Your task to perform on an android device: Open Wikipedia Image 0: 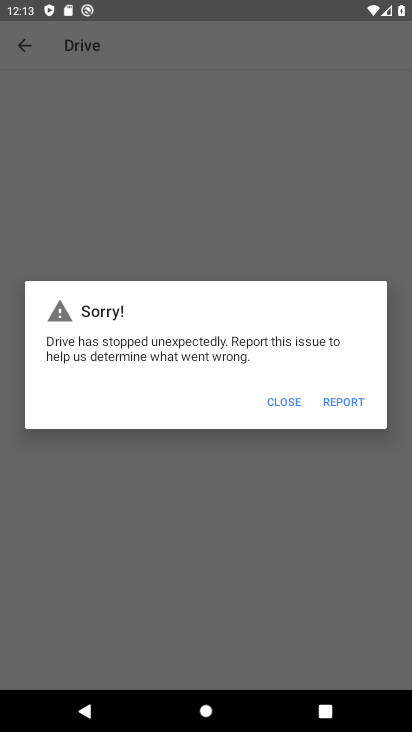
Step 0: press home button
Your task to perform on an android device: Open Wikipedia Image 1: 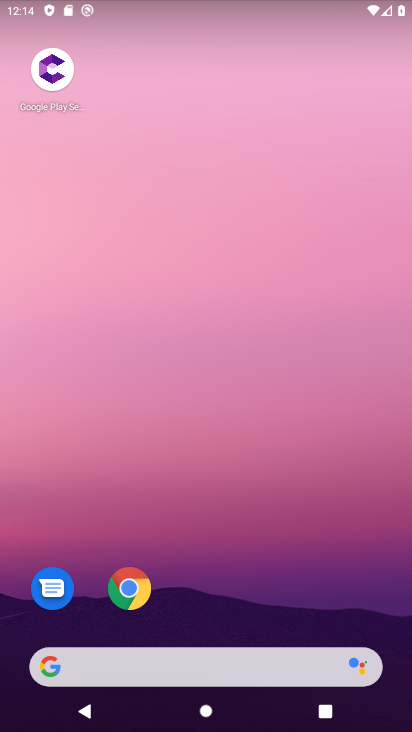
Step 1: click (126, 581)
Your task to perform on an android device: Open Wikipedia Image 2: 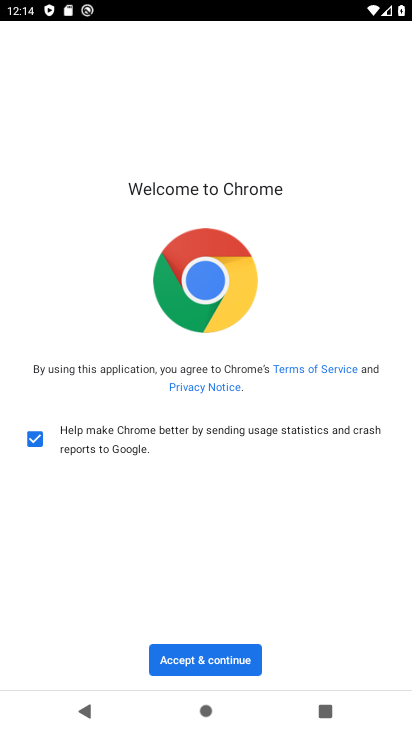
Step 2: click (174, 646)
Your task to perform on an android device: Open Wikipedia Image 3: 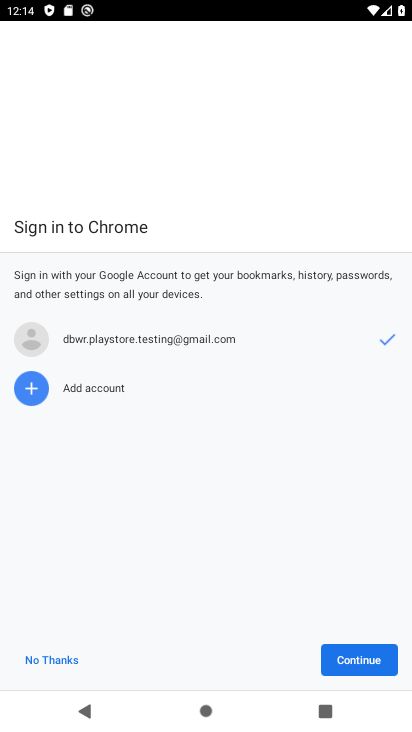
Step 3: click (365, 655)
Your task to perform on an android device: Open Wikipedia Image 4: 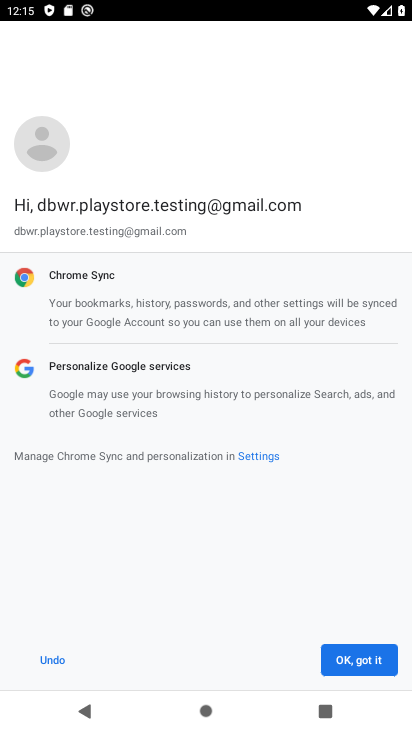
Step 4: click (346, 658)
Your task to perform on an android device: Open Wikipedia Image 5: 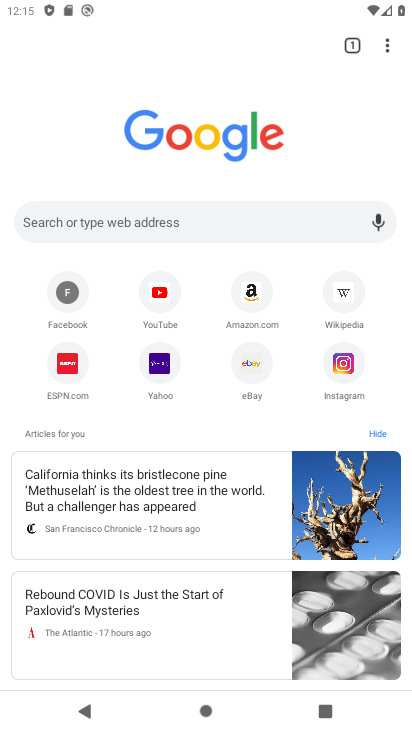
Step 5: click (330, 295)
Your task to perform on an android device: Open Wikipedia Image 6: 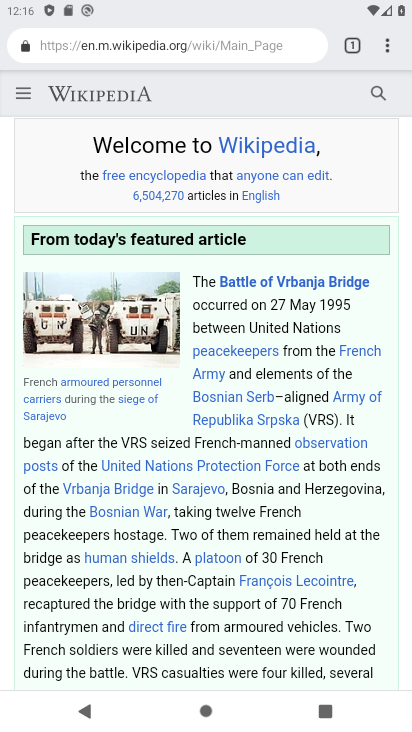
Step 6: task complete